Your task to perform on an android device: manage bookmarks in the chrome app Image 0: 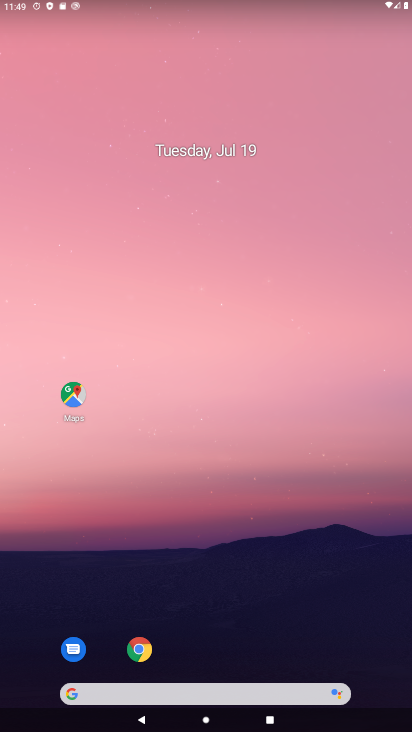
Step 0: drag from (240, 715) to (280, 192)
Your task to perform on an android device: manage bookmarks in the chrome app Image 1: 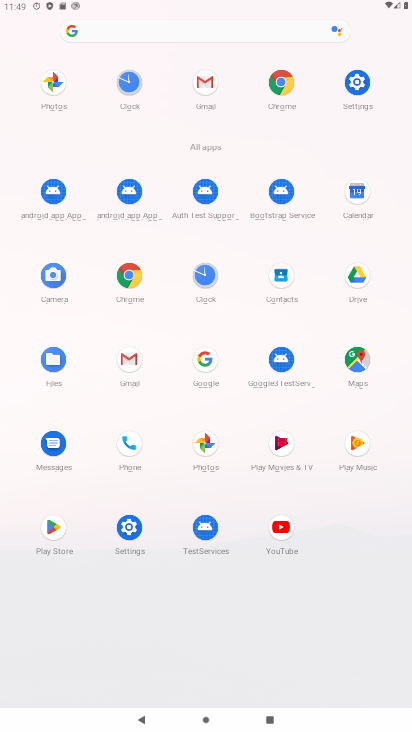
Step 1: click (130, 275)
Your task to perform on an android device: manage bookmarks in the chrome app Image 2: 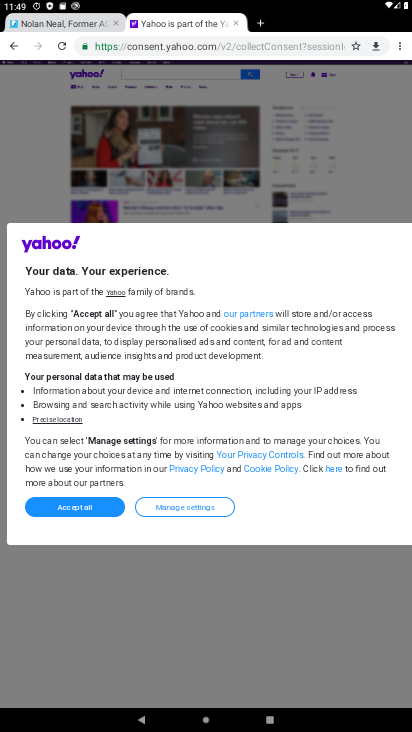
Step 2: click (402, 47)
Your task to perform on an android device: manage bookmarks in the chrome app Image 3: 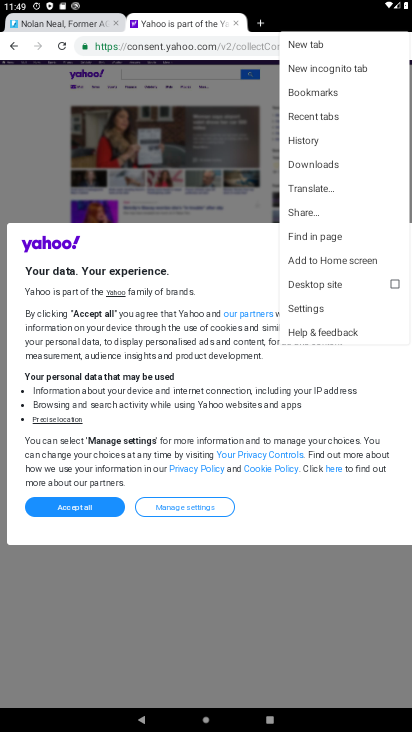
Step 3: click (322, 90)
Your task to perform on an android device: manage bookmarks in the chrome app Image 4: 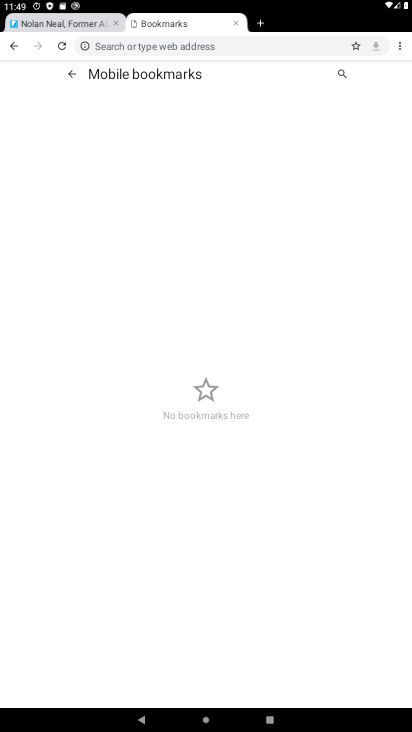
Step 4: task complete